Your task to perform on an android device: Open Youtube and go to "Your channel" Image 0: 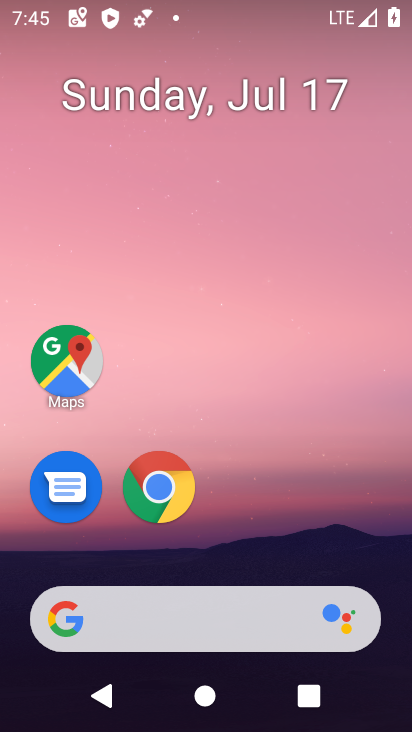
Step 0: drag from (320, 550) to (344, 81)
Your task to perform on an android device: Open Youtube and go to "Your channel" Image 1: 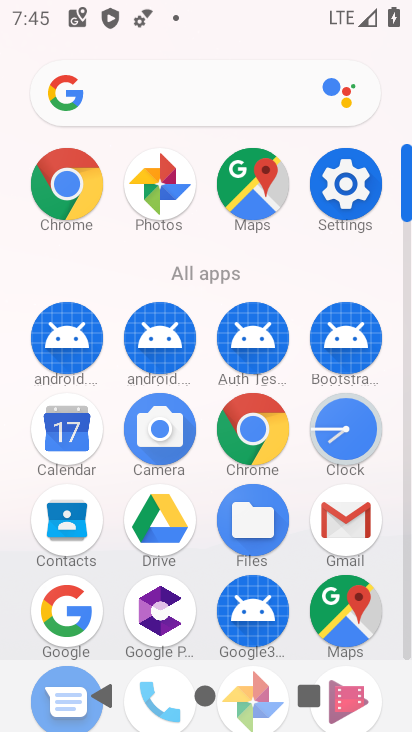
Step 1: drag from (395, 594) to (408, 266)
Your task to perform on an android device: Open Youtube and go to "Your channel" Image 2: 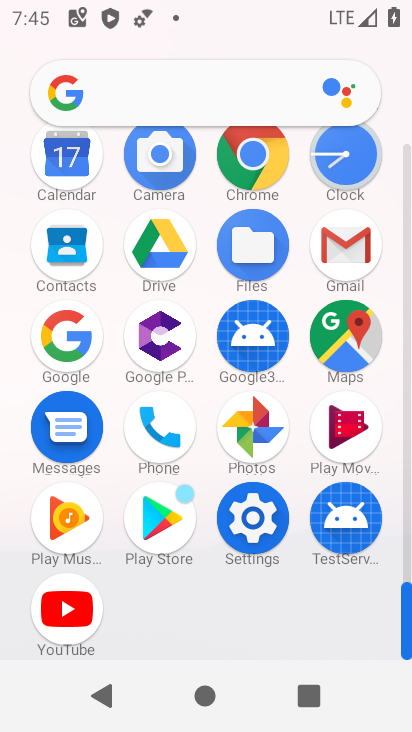
Step 2: click (71, 615)
Your task to perform on an android device: Open Youtube and go to "Your channel" Image 3: 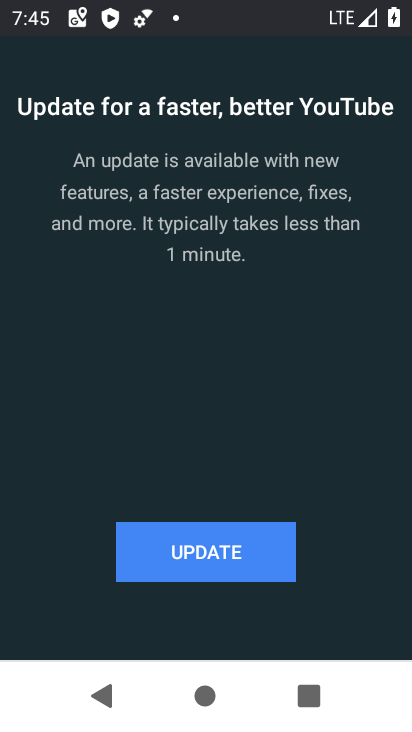
Step 3: click (207, 537)
Your task to perform on an android device: Open Youtube and go to "Your channel" Image 4: 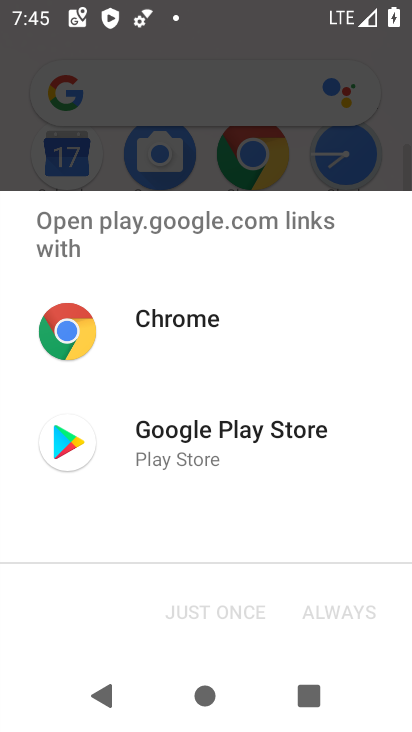
Step 4: click (187, 456)
Your task to perform on an android device: Open Youtube and go to "Your channel" Image 5: 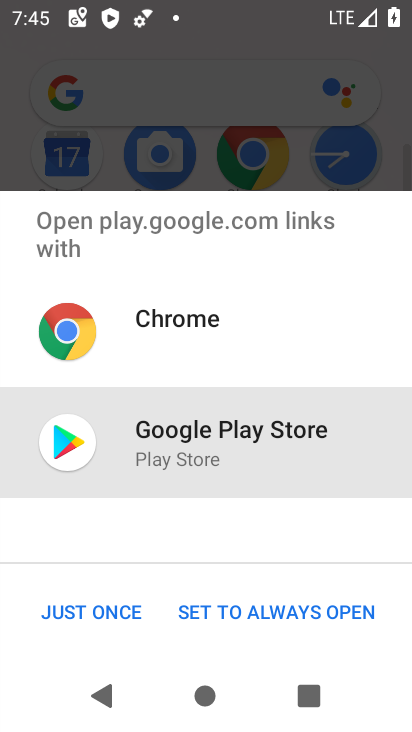
Step 5: click (128, 610)
Your task to perform on an android device: Open Youtube and go to "Your channel" Image 6: 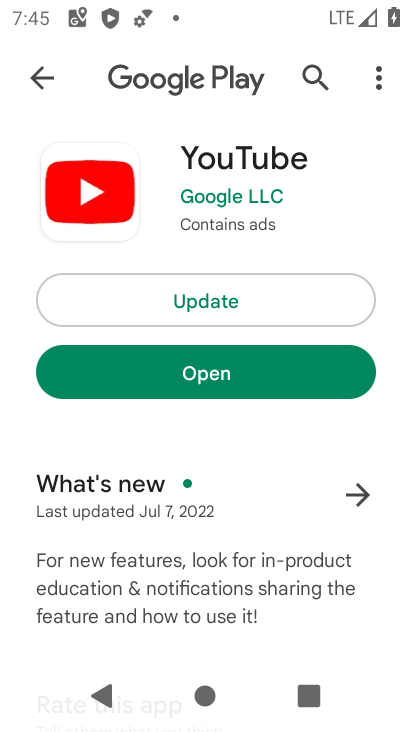
Step 6: click (235, 298)
Your task to perform on an android device: Open Youtube and go to "Your channel" Image 7: 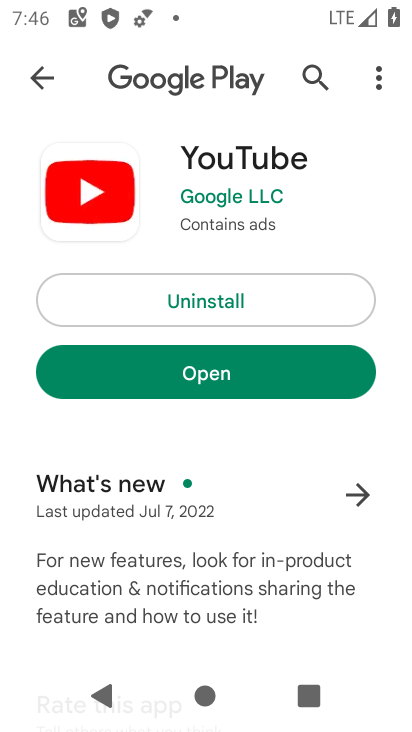
Step 7: click (243, 371)
Your task to perform on an android device: Open Youtube and go to "Your channel" Image 8: 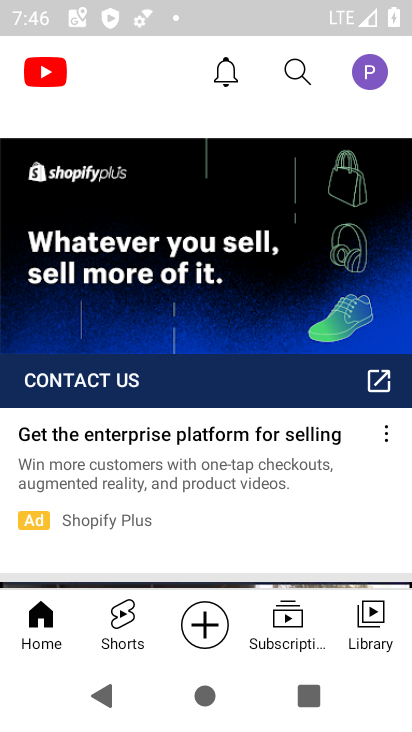
Step 8: click (364, 66)
Your task to perform on an android device: Open Youtube and go to "Your channel" Image 9: 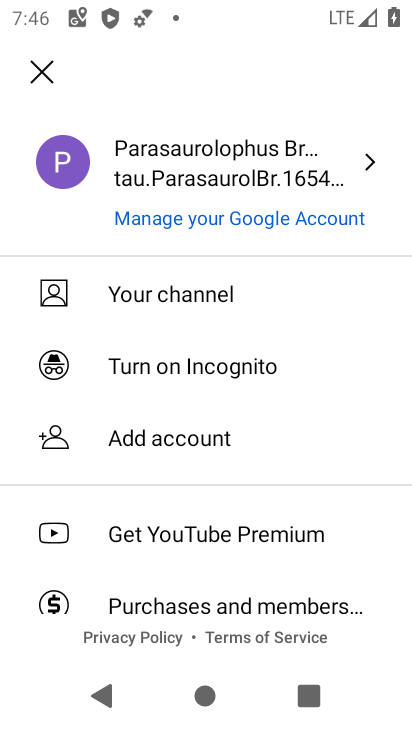
Step 9: click (238, 296)
Your task to perform on an android device: Open Youtube and go to "Your channel" Image 10: 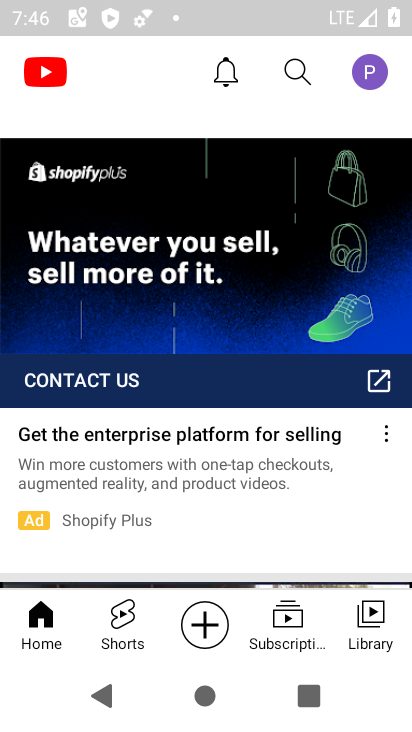
Step 10: task complete